Your task to perform on an android device: uninstall "Google Chat" Image 0: 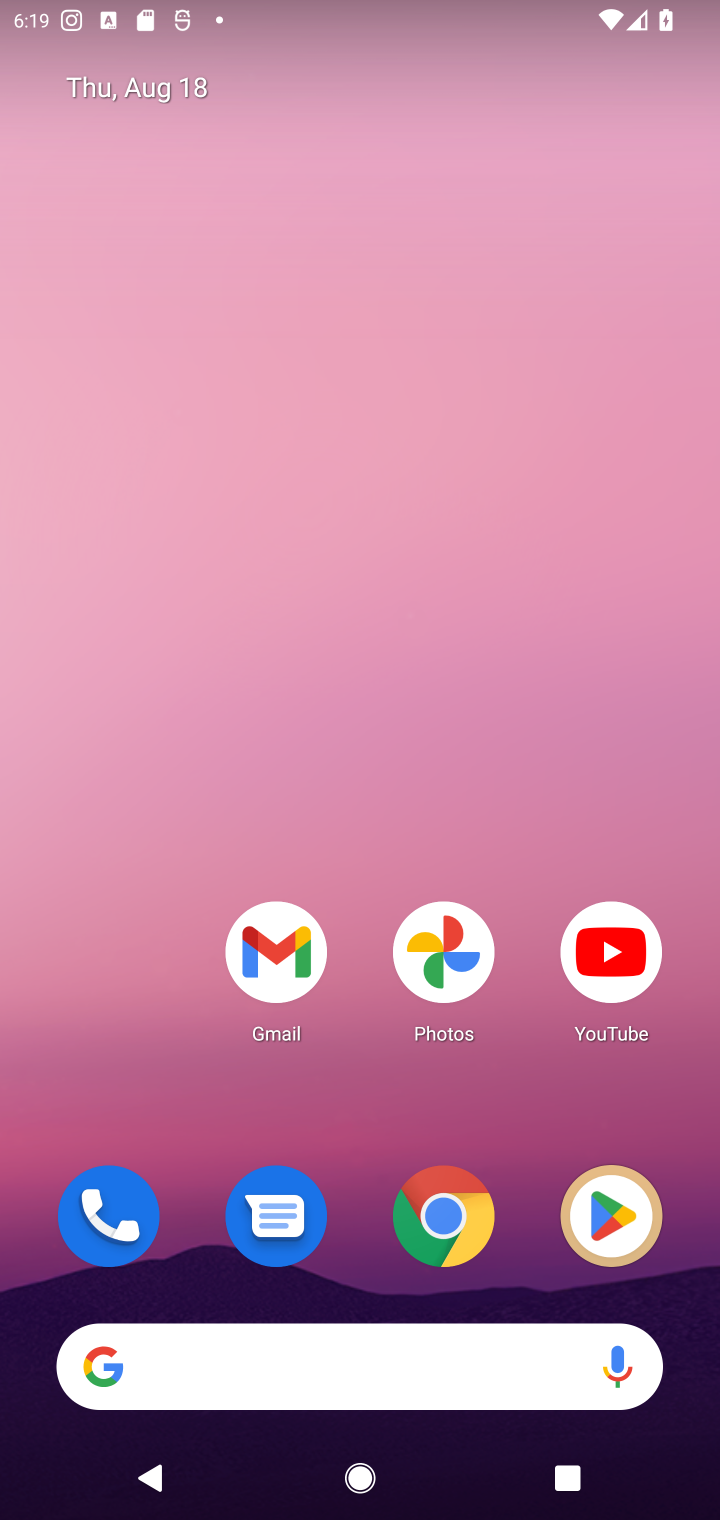
Step 0: click (598, 1252)
Your task to perform on an android device: uninstall "Google Chat" Image 1: 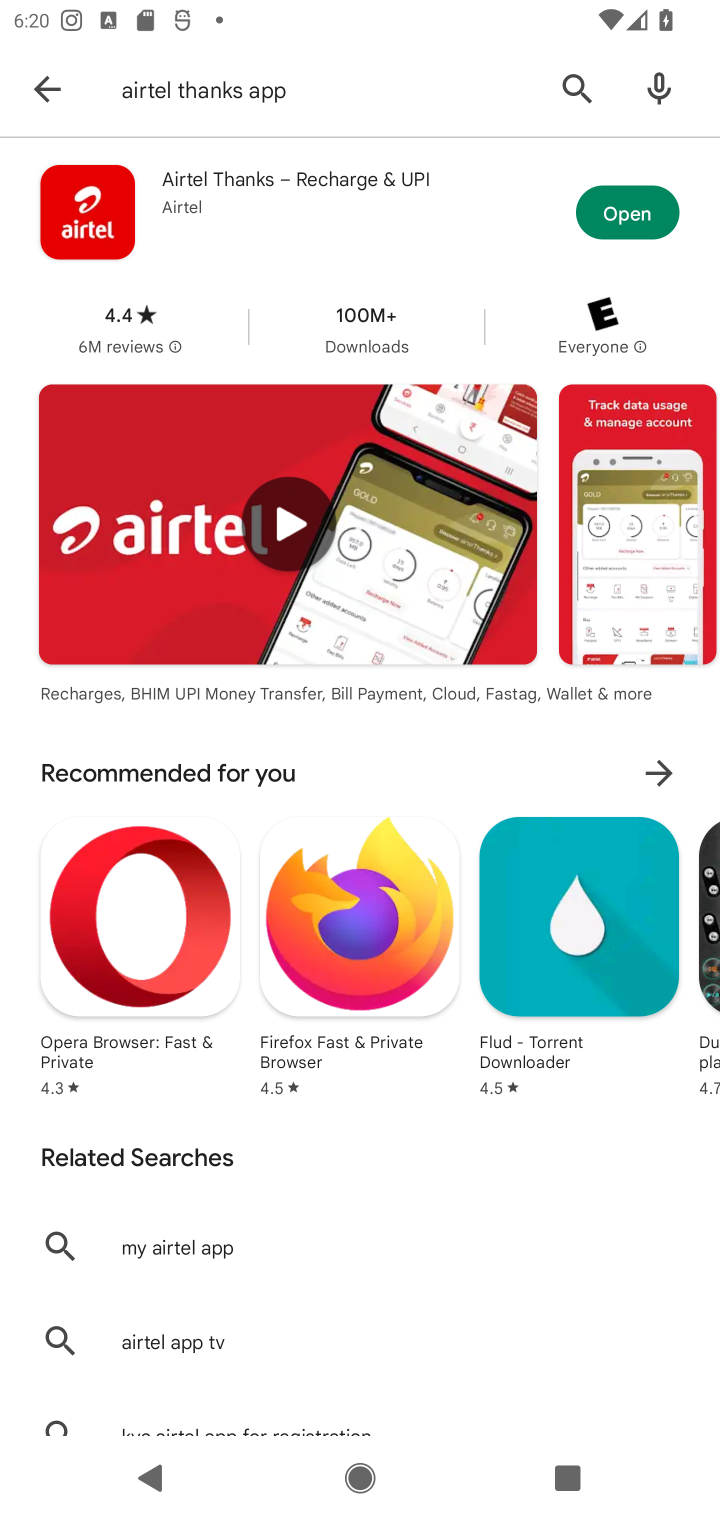
Step 1: click (567, 97)
Your task to perform on an android device: uninstall "Google Chat" Image 2: 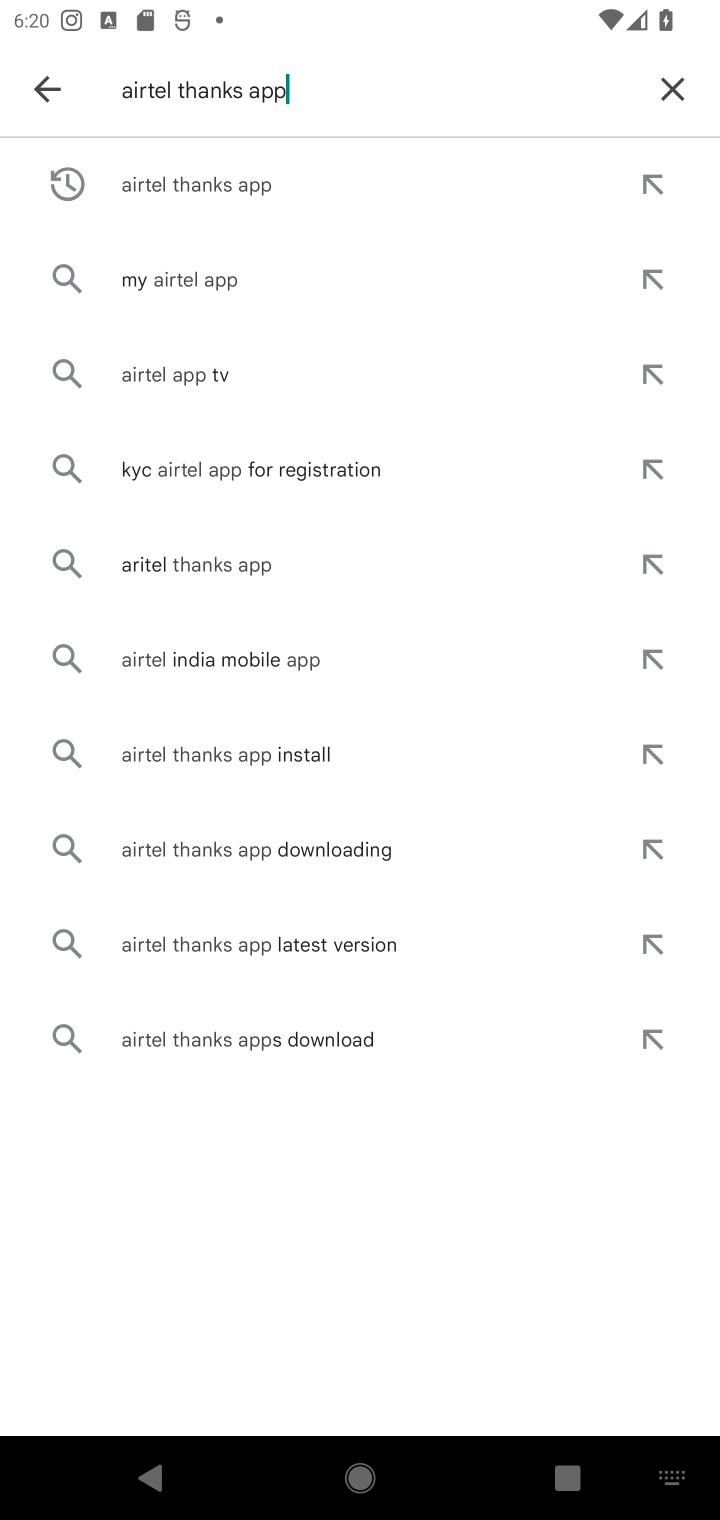
Step 2: click (666, 87)
Your task to perform on an android device: uninstall "Google Chat" Image 3: 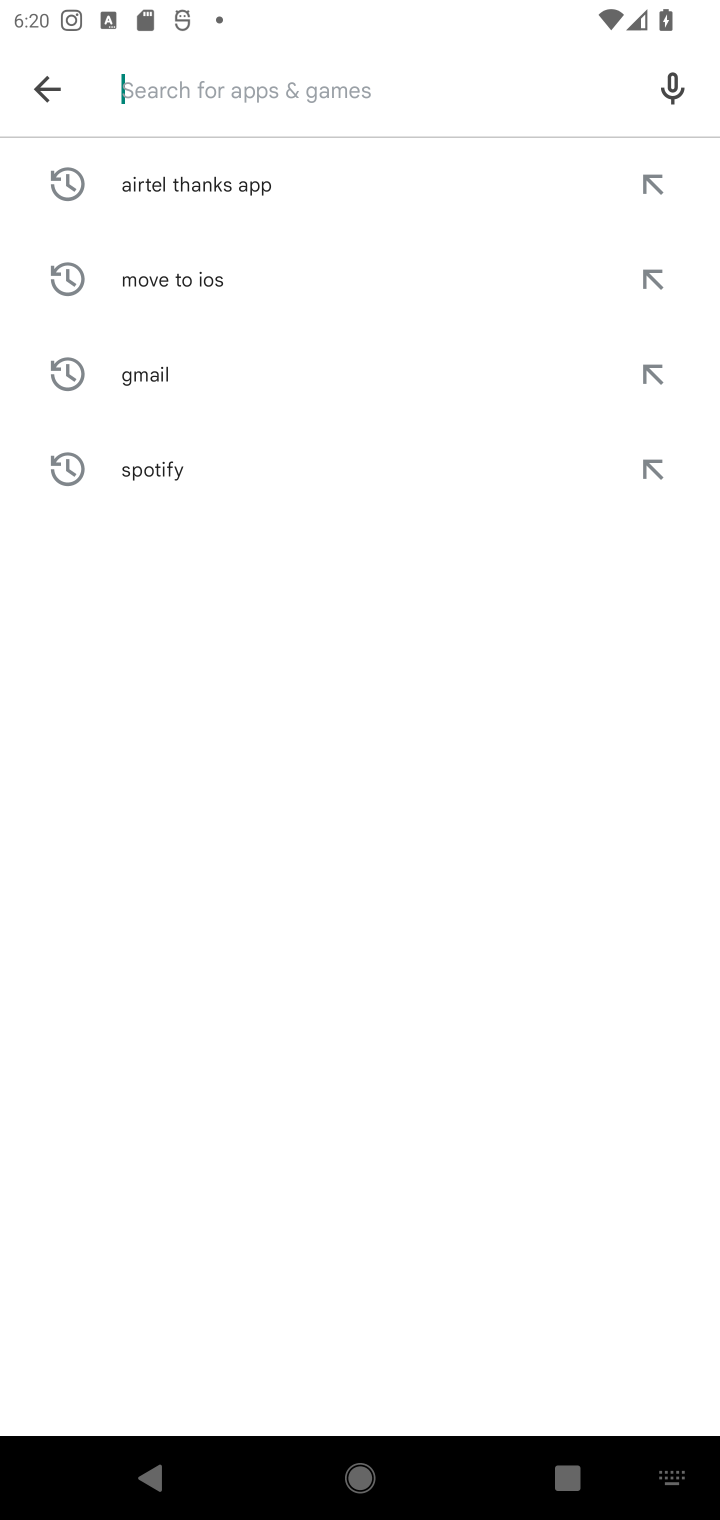
Step 3: type "Google Chat"
Your task to perform on an android device: uninstall "Google Chat" Image 4: 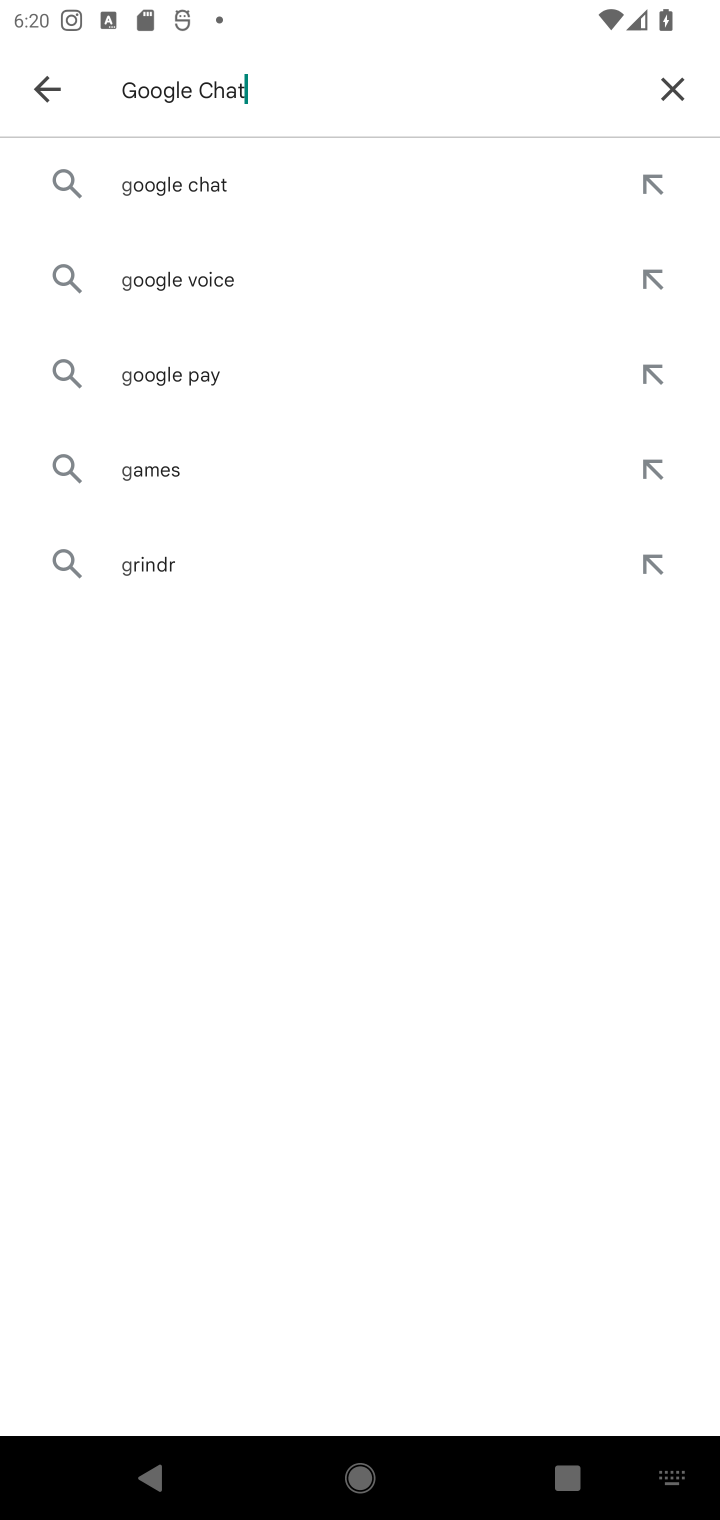
Step 4: type ""
Your task to perform on an android device: uninstall "Google Chat" Image 5: 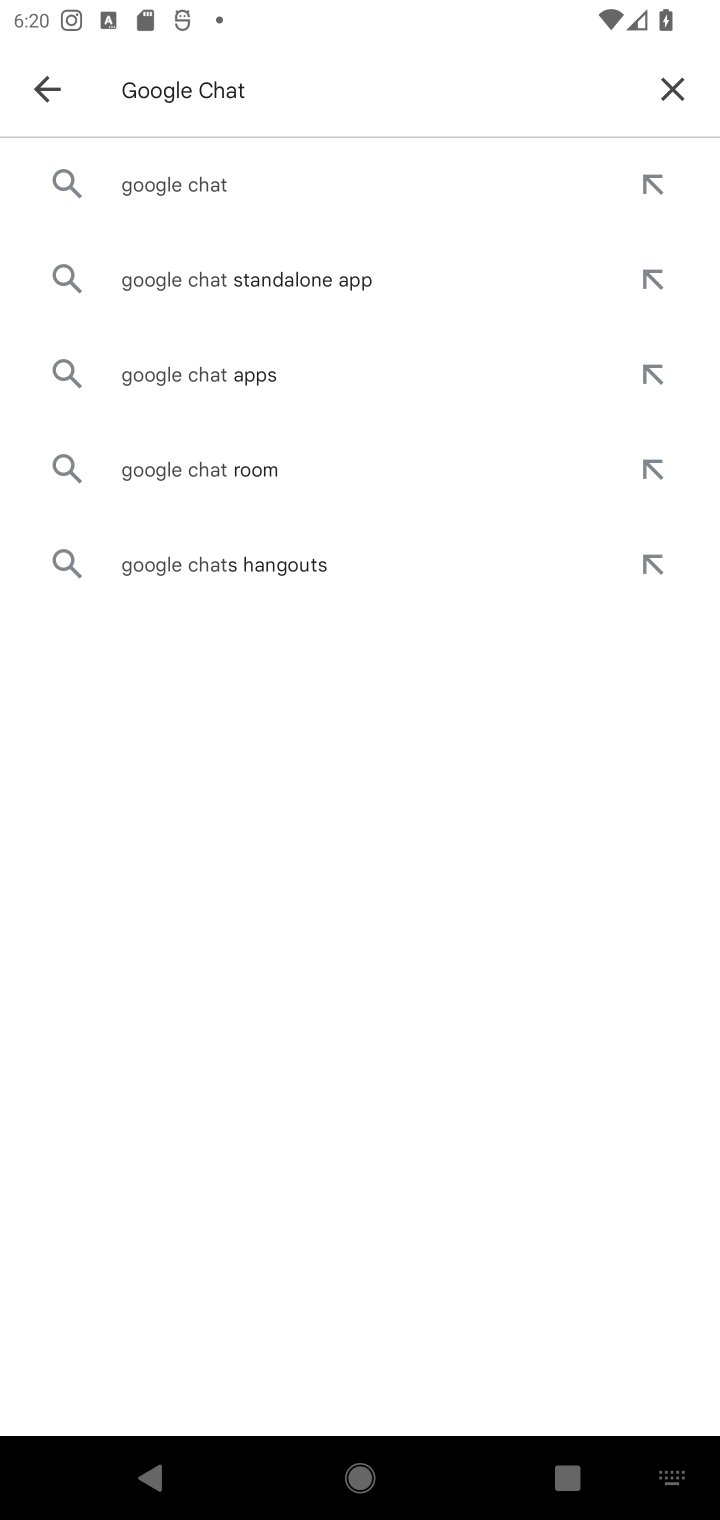
Step 5: click (175, 187)
Your task to perform on an android device: uninstall "Google Chat" Image 6: 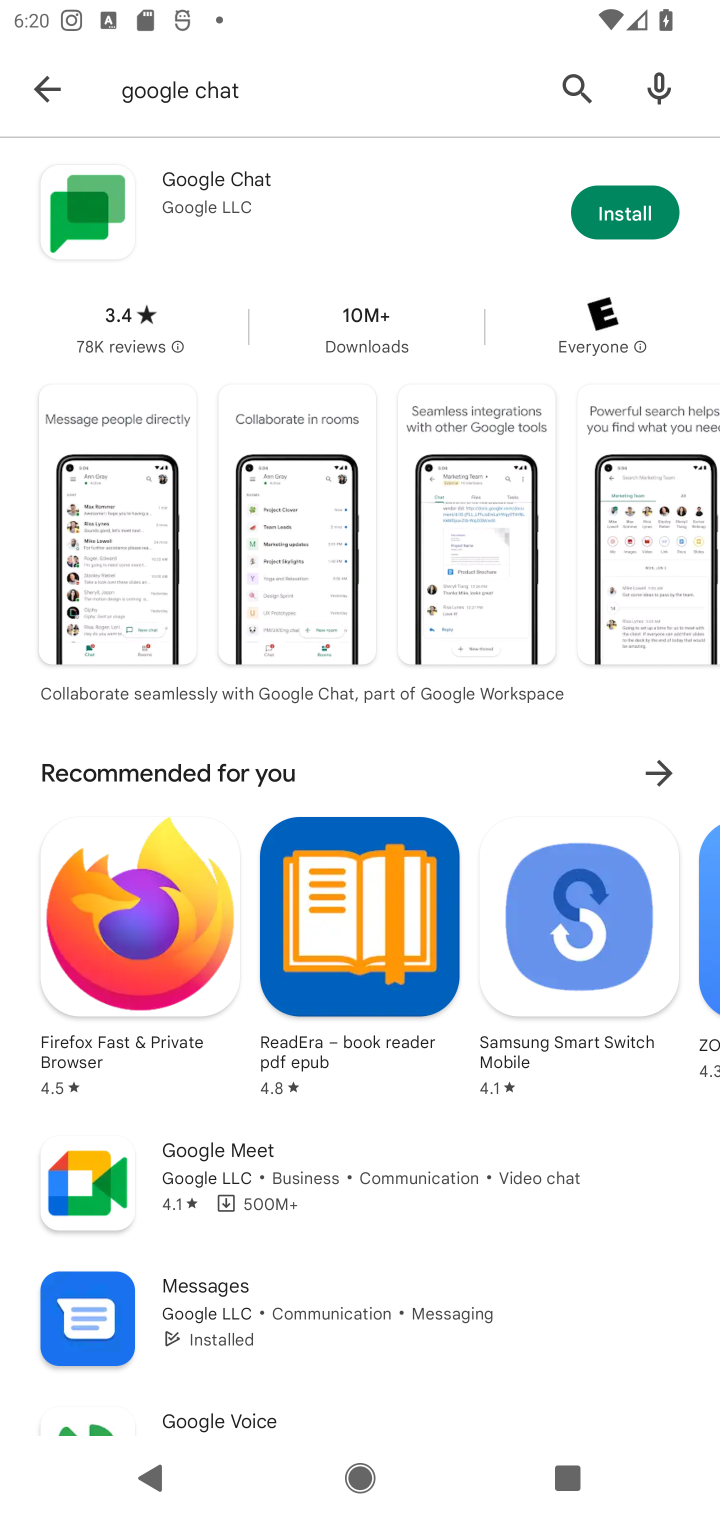
Step 6: click (361, 189)
Your task to perform on an android device: uninstall "Google Chat" Image 7: 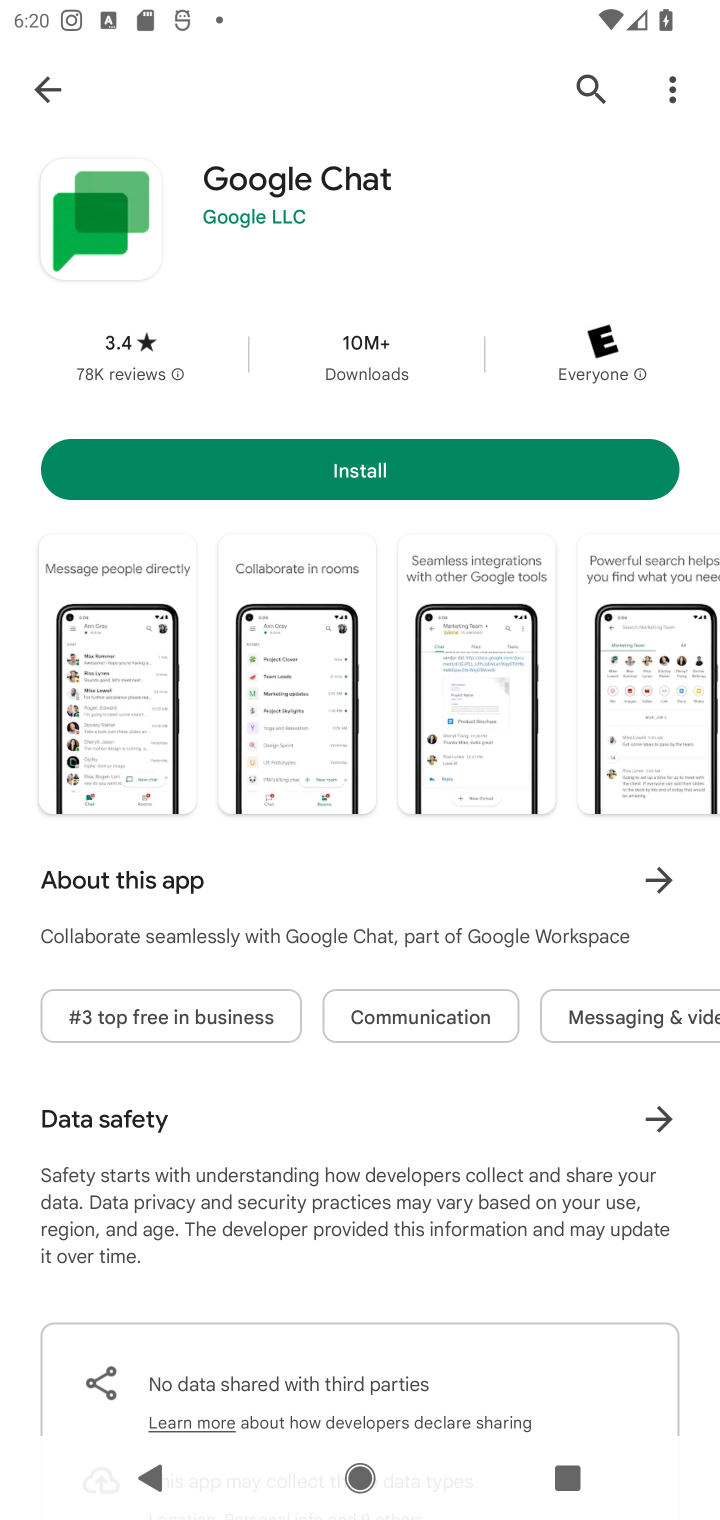
Step 7: task complete